Your task to perform on an android device: visit the assistant section in the google photos Image 0: 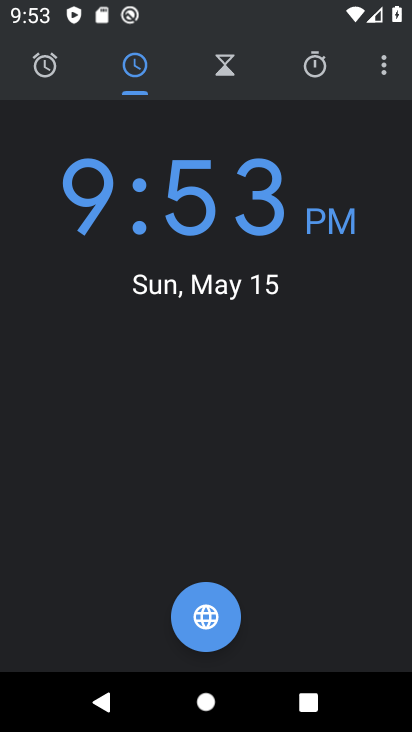
Step 0: press home button
Your task to perform on an android device: visit the assistant section in the google photos Image 1: 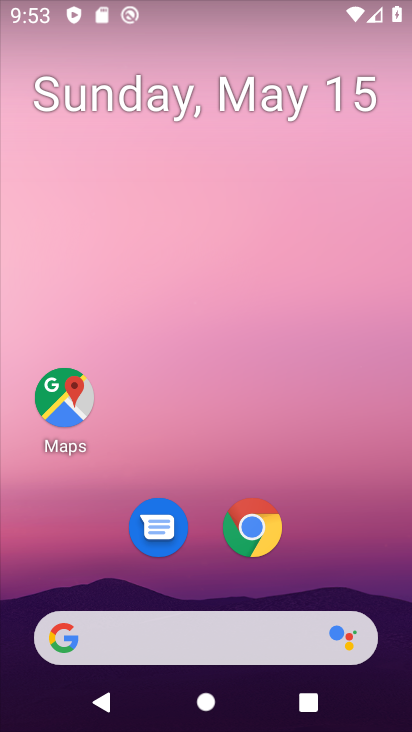
Step 1: drag from (154, 598) to (192, 229)
Your task to perform on an android device: visit the assistant section in the google photos Image 2: 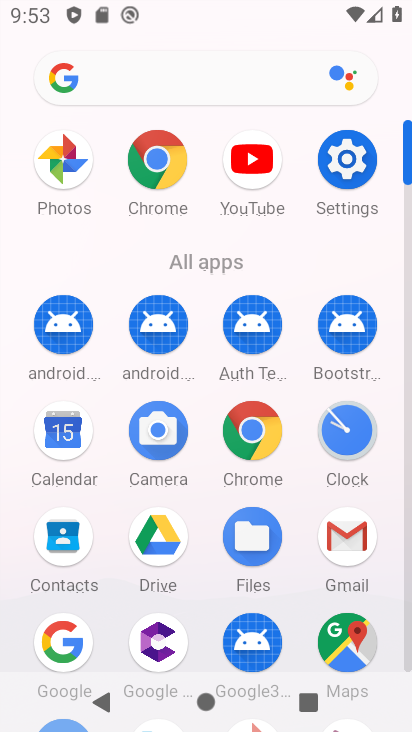
Step 2: drag from (238, 629) to (268, 444)
Your task to perform on an android device: visit the assistant section in the google photos Image 3: 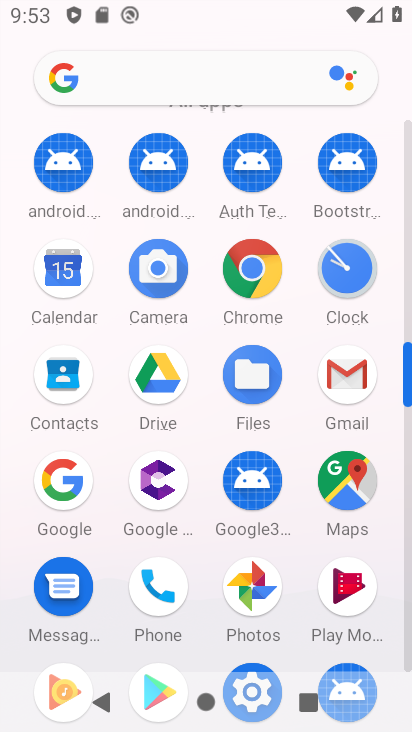
Step 3: click (238, 577)
Your task to perform on an android device: visit the assistant section in the google photos Image 4: 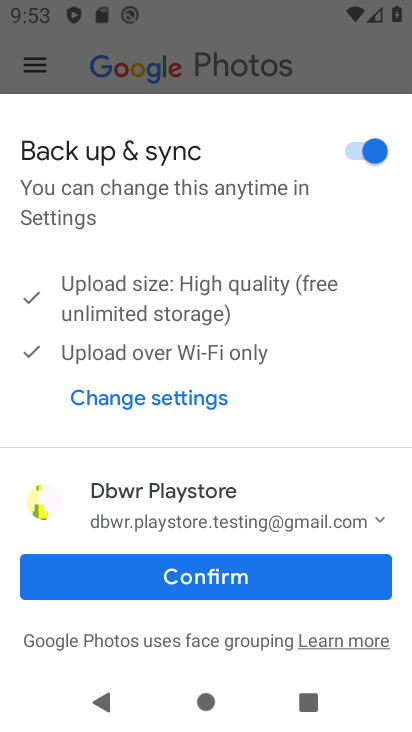
Step 4: click (241, 586)
Your task to perform on an android device: visit the assistant section in the google photos Image 5: 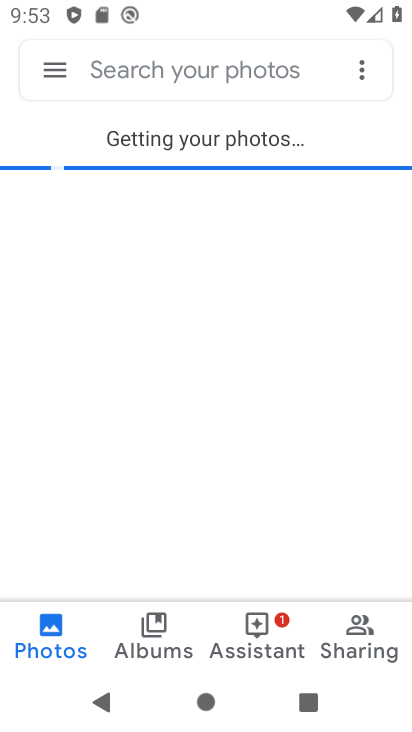
Step 5: click (282, 640)
Your task to perform on an android device: visit the assistant section in the google photos Image 6: 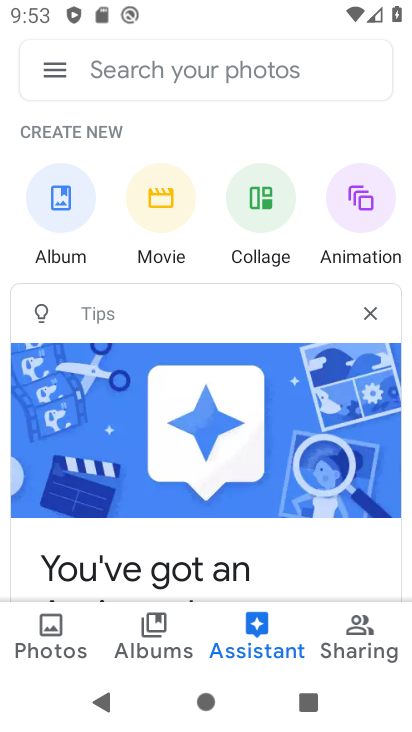
Step 6: task complete